Your task to perform on an android device: turn off translation in the chrome app Image 0: 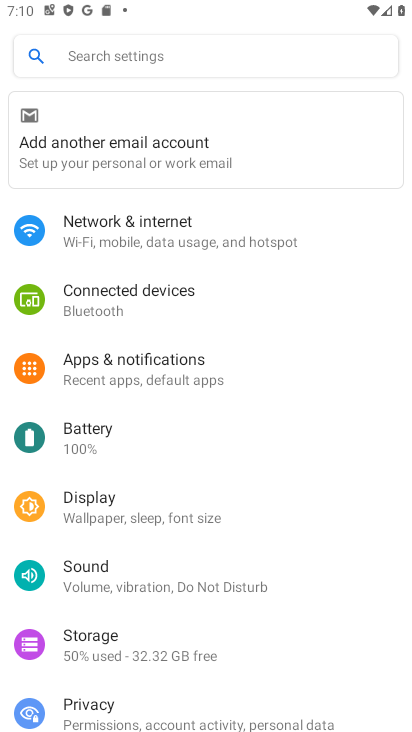
Step 0: press home button
Your task to perform on an android device: turn off translation in the chrome app Image 1: 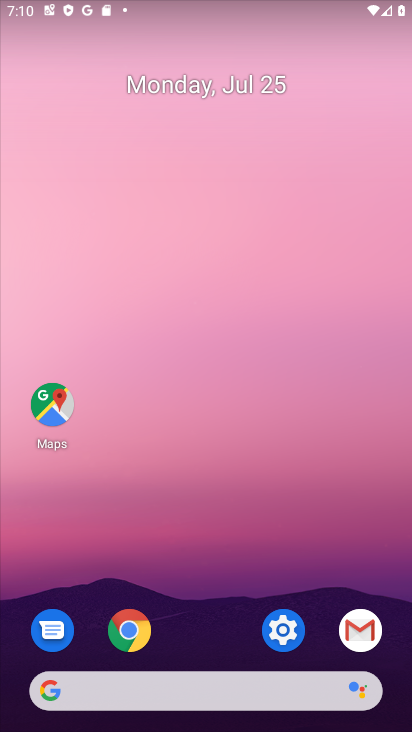
Step 1: click (131, 622)
Your task to perform on an android device: turn off translation in the chrome app Image 2: 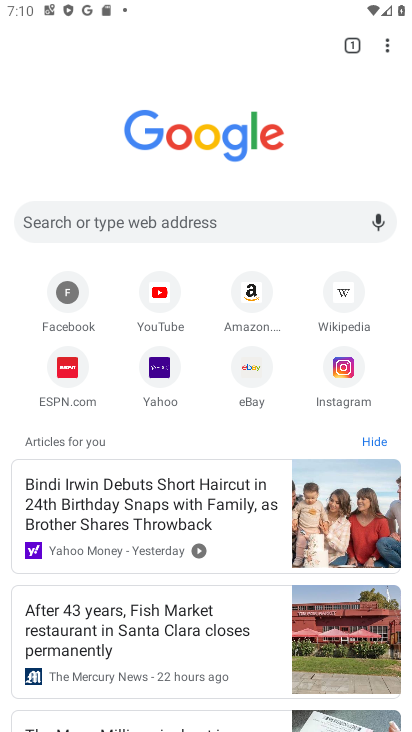
Step 2: click (381, 57)
Your task to perform on an android device: turn off translation in the chrome app Image 3: 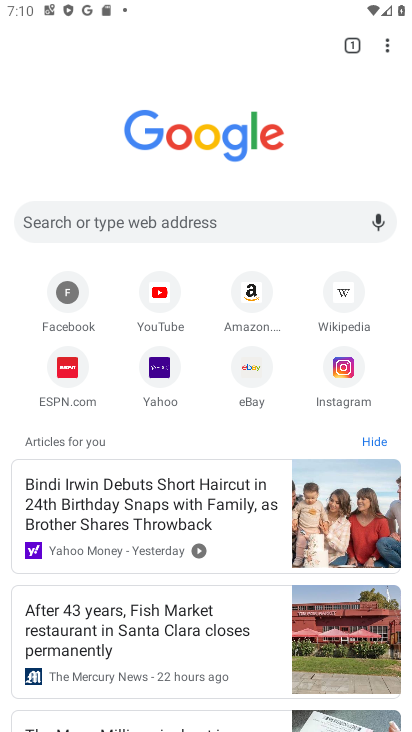
Step 3: click (390, 52)
Your task to perform on an android device: turn off translation in the chrome app Image 4: 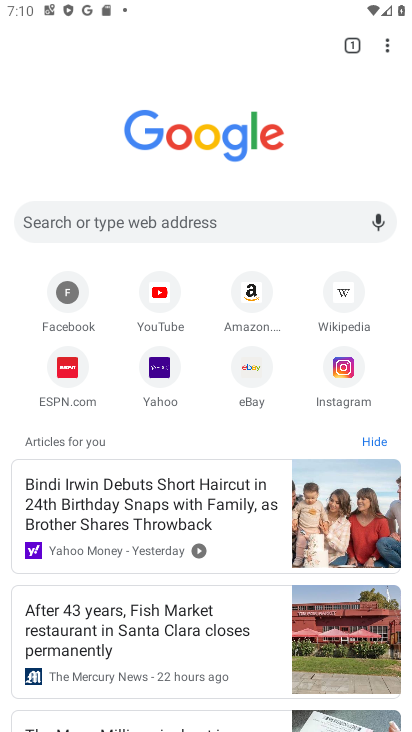
Step 4: click (385, 48)
Your task to perform on an android device: turn off translation in the chrome app Image 5: 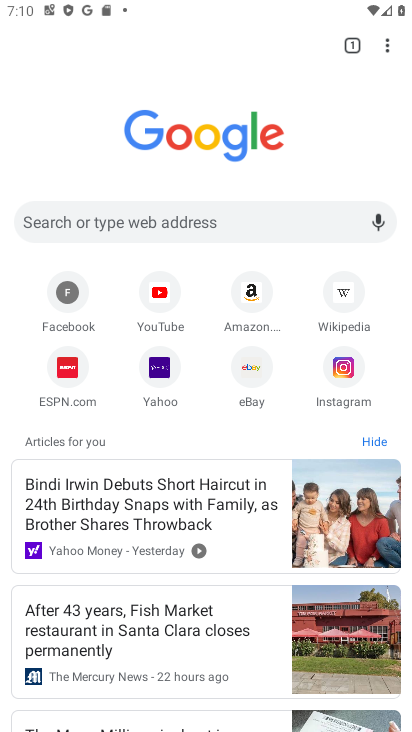
Step 5: click (393, 52)
Your task to perform on an android device: turn off translation in the chrome app Image 6: 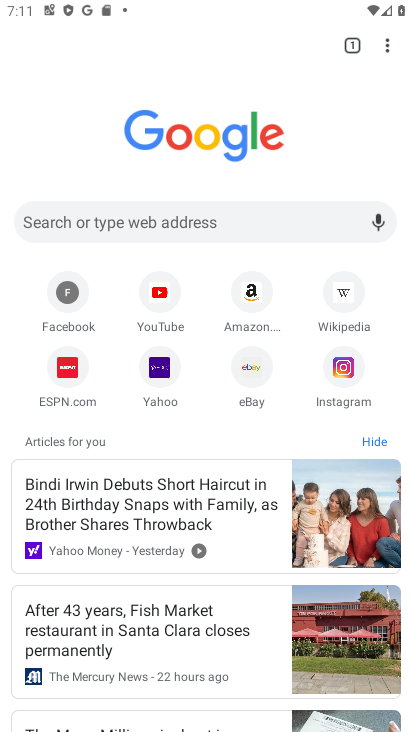
Step 6: click (386, 54)
Your task to perform on an android device: turn off translation in the chrome app Image 7: 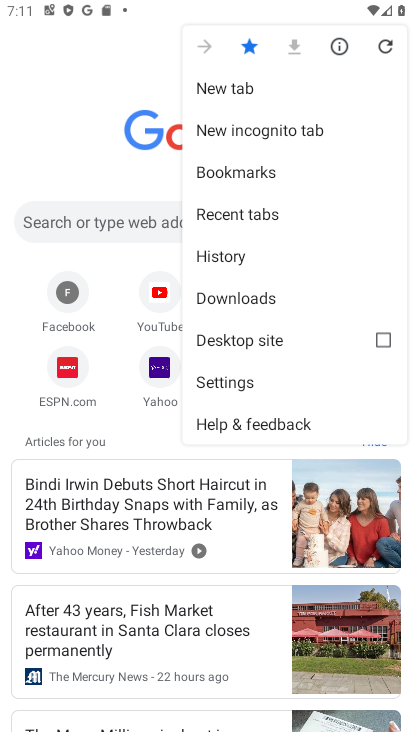
Step 7: click (218, 384)
Your task to perform on an android device: turn off translation in the chrome app Image 8: 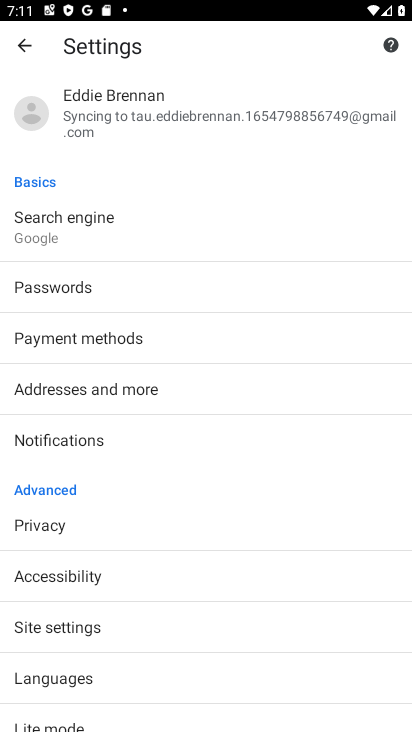
Step 8: click (76, 718)
Your task to perform on an android device: turn off translation in the chrome app Image 9: 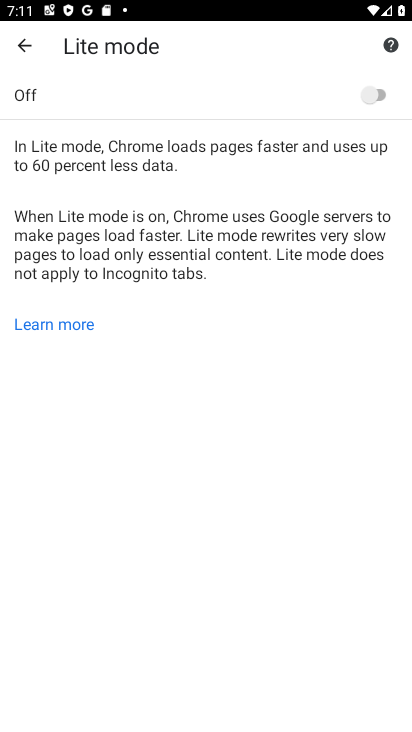
Step 9: click (27, 59)
Your task to perform on an android device: turn off translation in the chrome app Image 10: 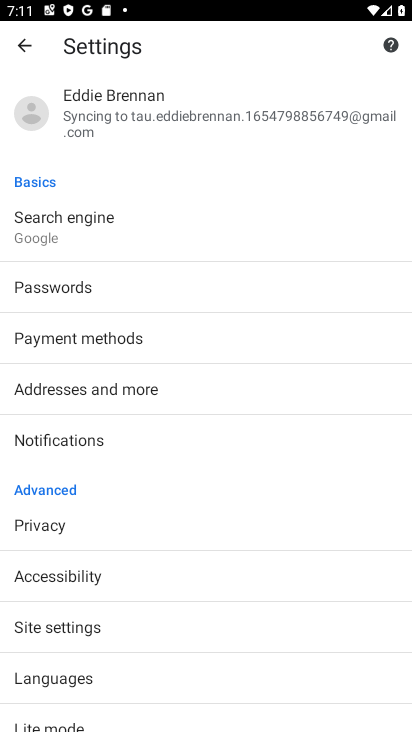
Step 10: click (100, 676)
Your task to perform on an android device: turn off translation in the chrome app Image 11: 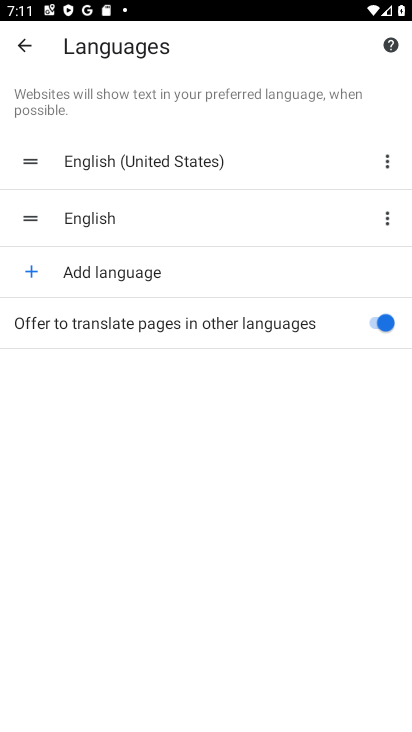
Step 11: click (343, 333)
Your task to perform on an android device: turn off translation in the chrome app Image 12: 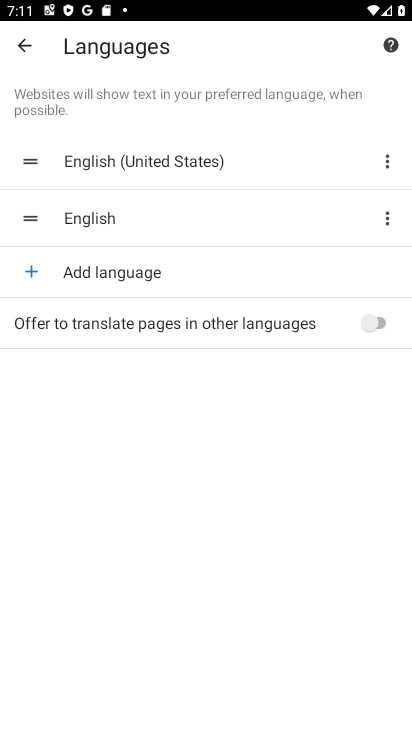
Step 12: task complete